Your task to perform on an android device: Open Maps and search for coffee Image 0: 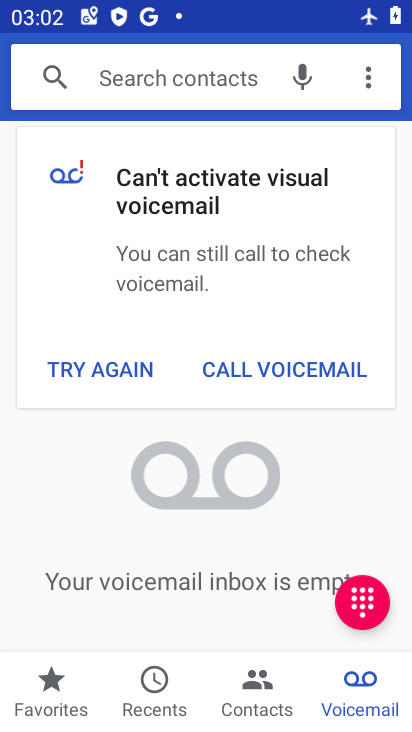
Step 0: press home button
Your task to perform on an android device: Open Maps and search for coffee Image 1: 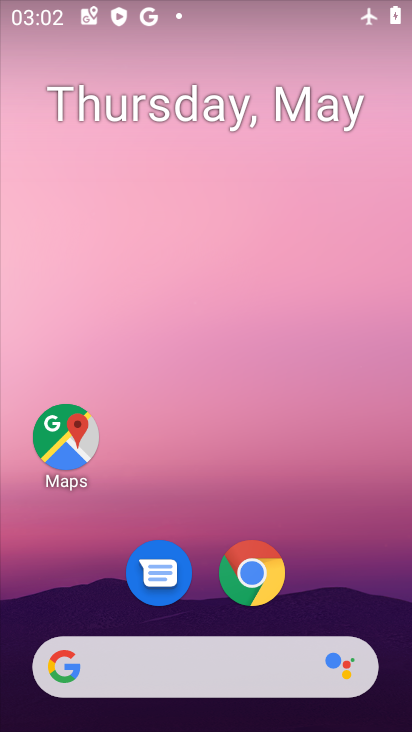
Step 1: click (69, 443)
Your task to perform on an android device: Open Maps and search for coffee Image 2: 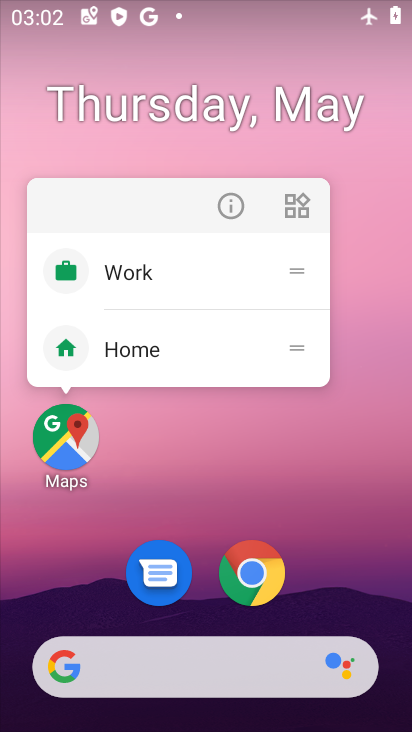
Step 2: click (53, 436)
Your task to perform on an android device: Open Maps and search for coffee Image 3: 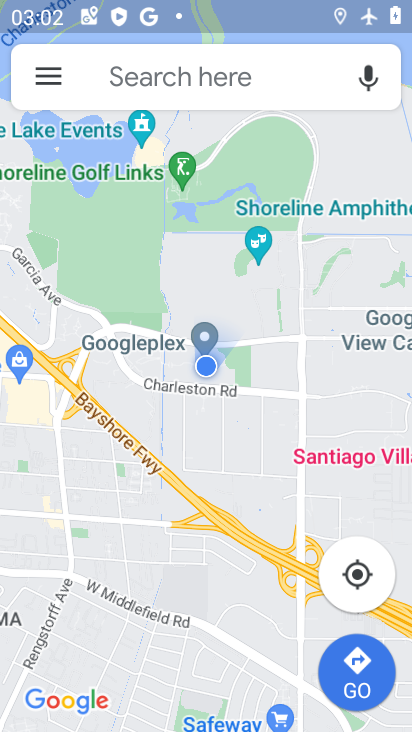
Step 3: click (207, 58)
Your task to perform on an android device: Open Maps and search for coffee Image 4: 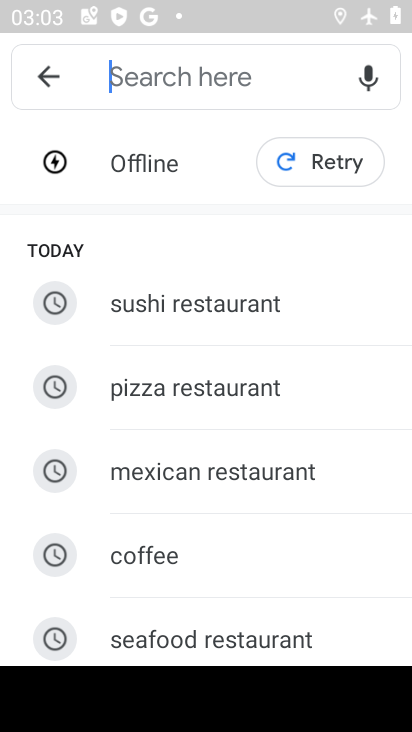
Step 4: click (138, 547)
Your task to perform on an android device: Open Maps and search for coffee Image 5: 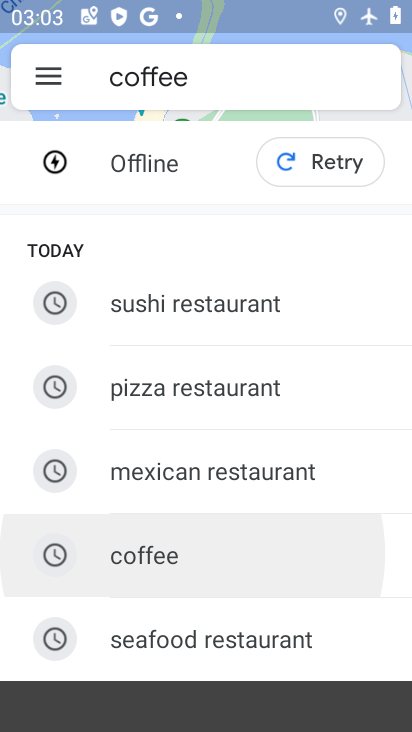
Step 5: click (138, 547)
Your task to perform on an android device: Open Maps and search for coffee Image 6: 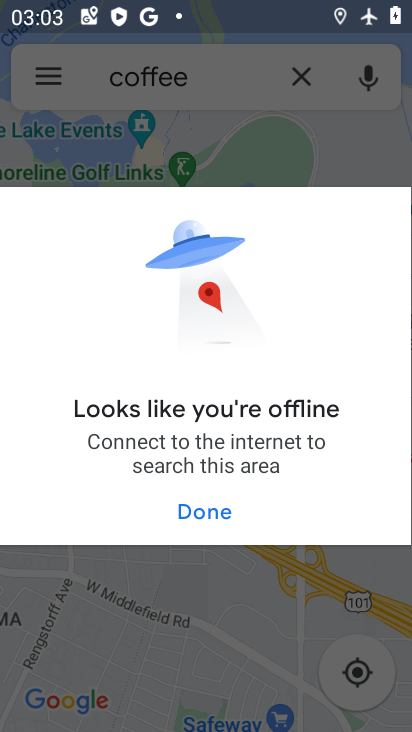
Step 6: task complete